Your task to perform on an android device: What's on my calendar tomorrow? Image 0: 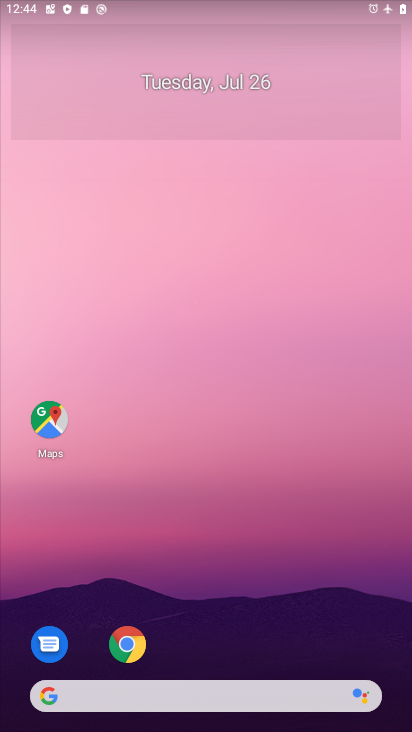
Step 0: drag from (237, 637) to (294, 167)
Your task to perform on an android device: What's on my calendar tomorrow? Image 1: 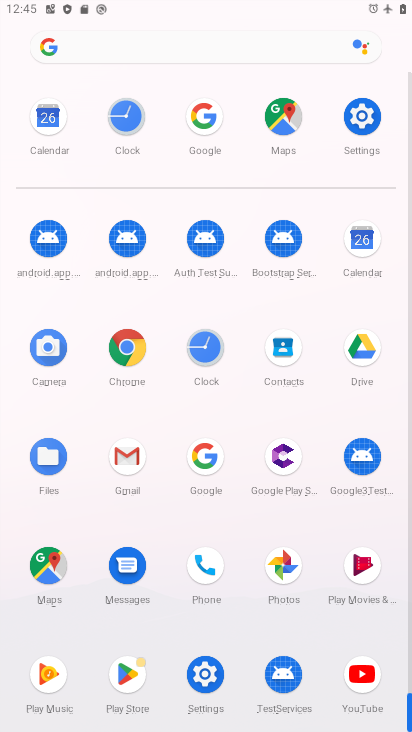
Step 1: click (351, 250)
Your task to perform on an android device: What's on my calendar tomorrow? Image 2: 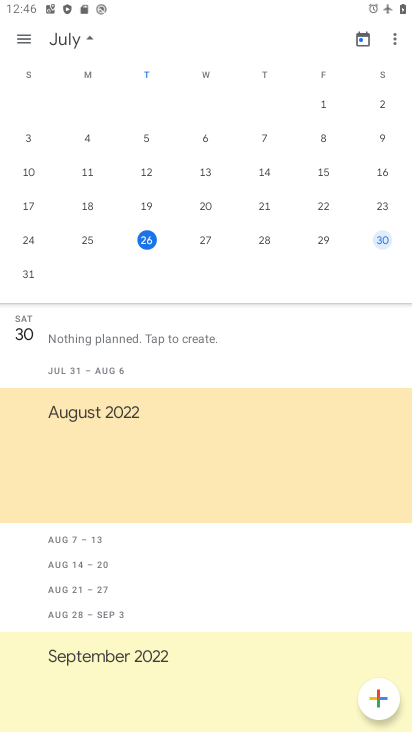
Step 2: click (202, 246)
Your task to perform on an android device: What's on my calendar tomorrow? Image 3: 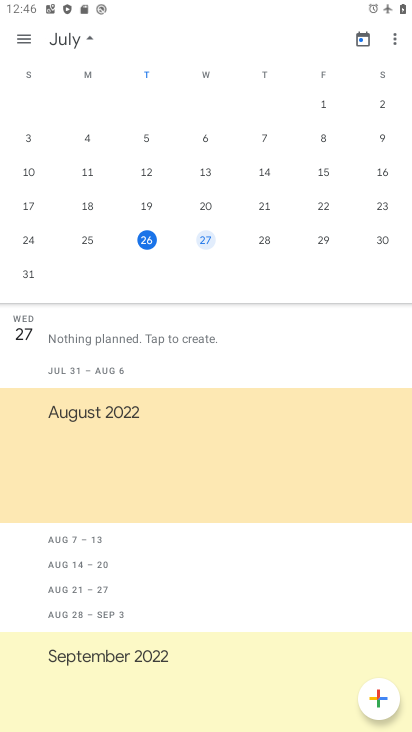
Step 3: task complete